Your task to perform on an android device: Open notification settings Image 0: 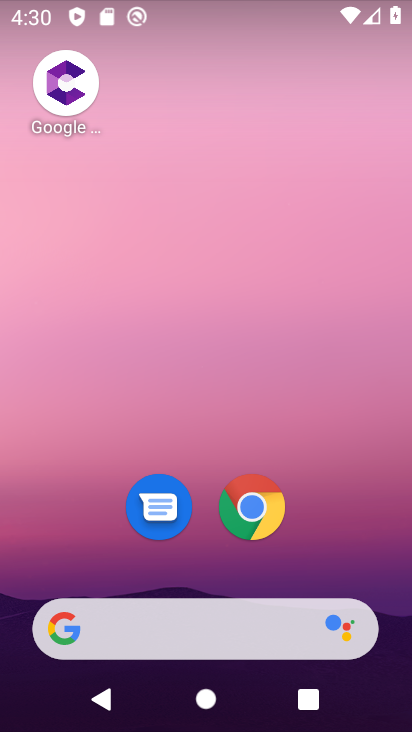
Step 0: drag from (305, 657) to (208, 43)
Your task to perform on an android device: Open notification settings Image 1: 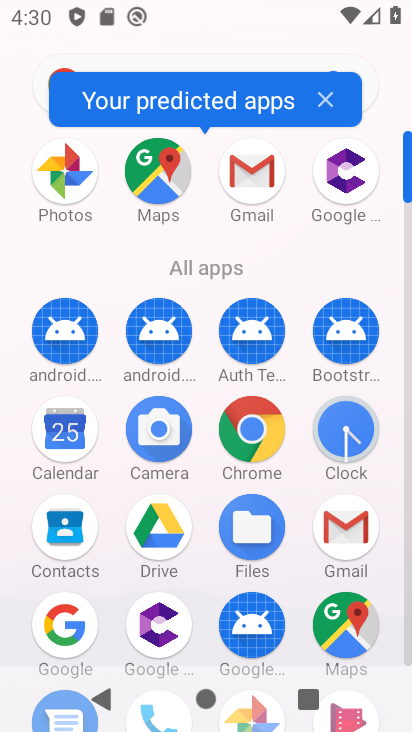
Step 1: drag from (320, 350) to (278, 33)
Your task to perform on an android device: Open notification settings Image 2: 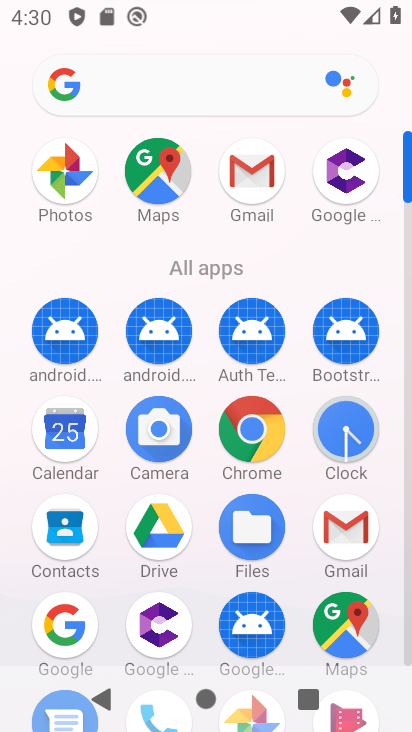
Step 2: drag from (296, 525) to (272, 2)
Your task to perform on an android device: Open notification settings Image 3: 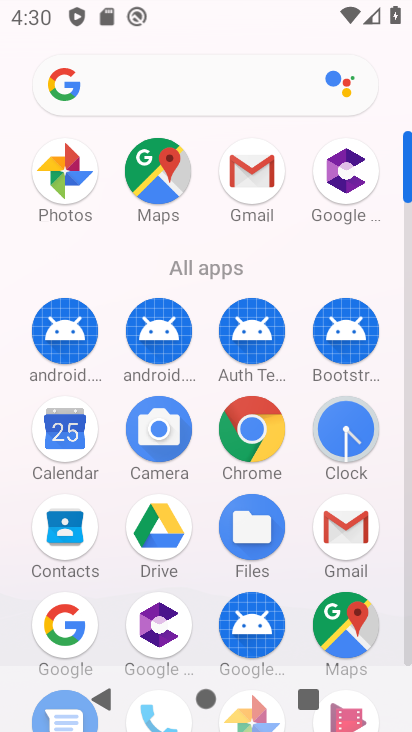
Step 3: drag from (279, 343) to (299, 43)
Your task to perform on an android device: Open notification settings Image 4: 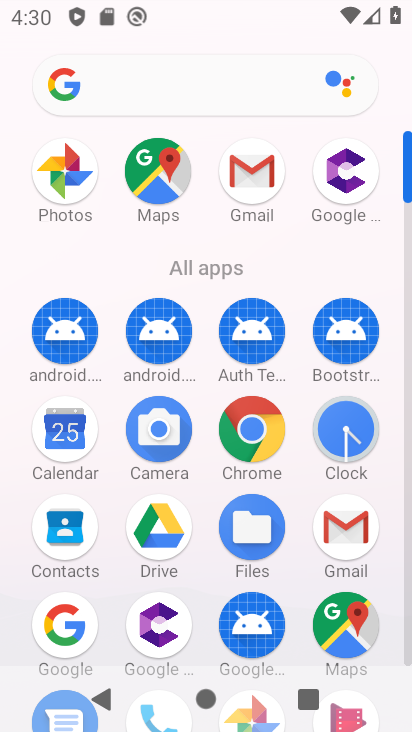
Step 4: drag from (305, 411) to (267, 104)
Your task to perform on an android device: Open notification settings Image 5: 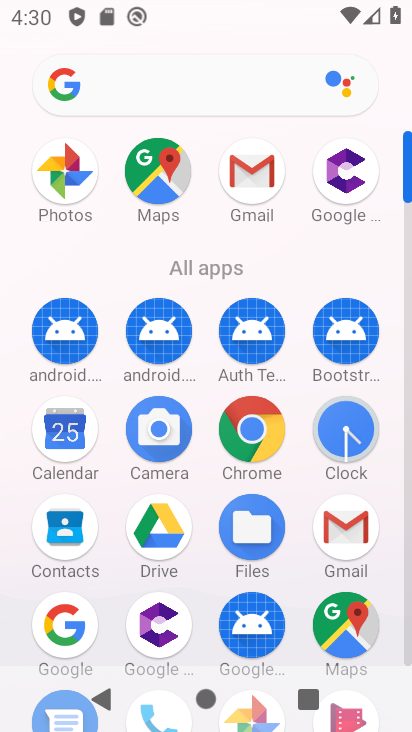
Step 5: drag from (290, 429) to (303, 54)
Your task to perform on an android device: Open notification settings Image 6: 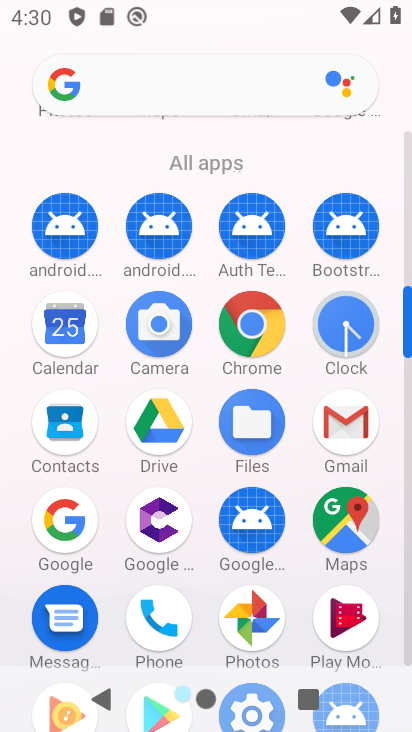
Step 6: drag from (272, 380) to (270, 34)
Your task to perform on an android device: Open notification settings Image 7: 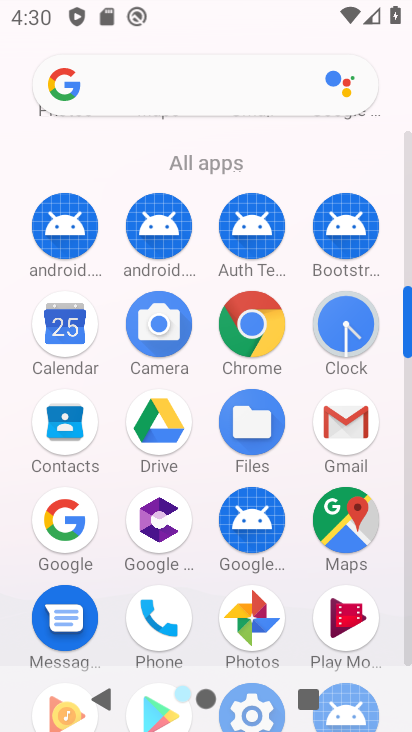
Step 7: drag from (323, 335) to (342, 7)
Your task to perform on an android device: Open notification settings Image 8: 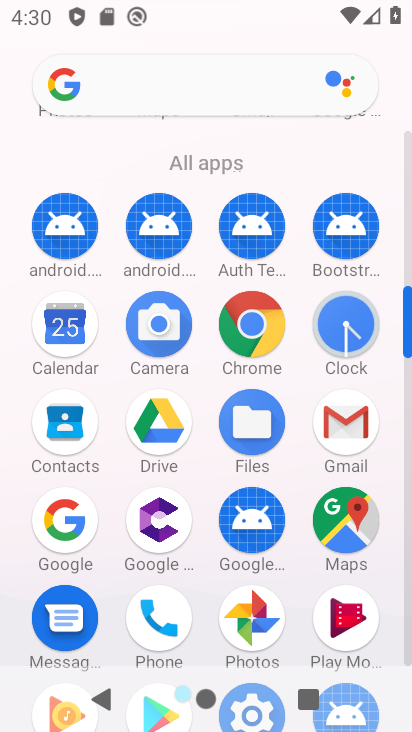
Step 8: drag from (271, 437) to (223, 95)
Your task to perform on an android device: Open notification settings Image 9: 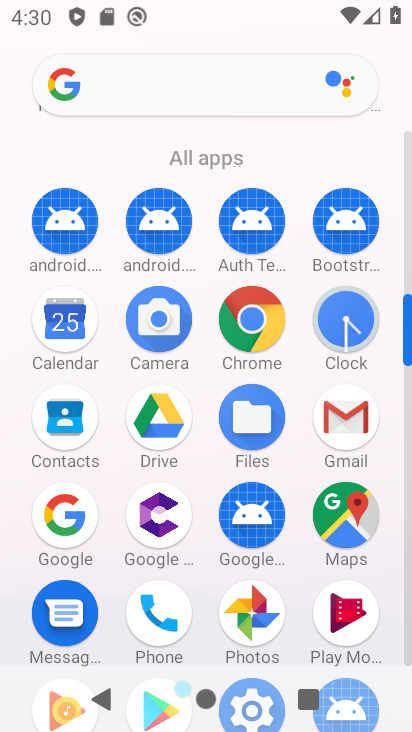
Step 9: drag from (230, 496) to (134, 87)
Your task to perform on an android device: Open notification settings Image 10: 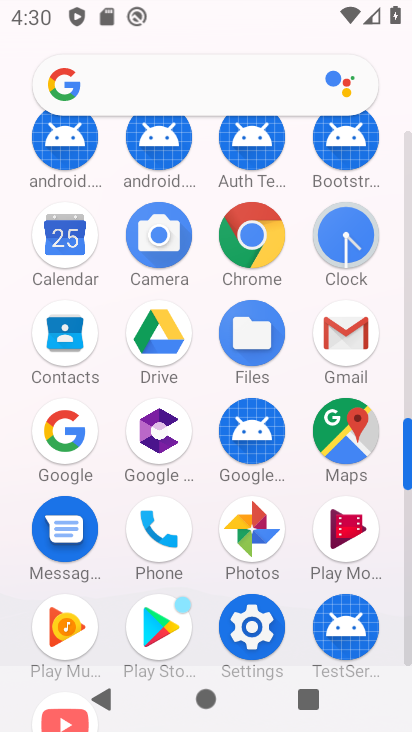
Step 10: click (265, 219)
Your task to perform on an android device: Open notification settings Image 11: 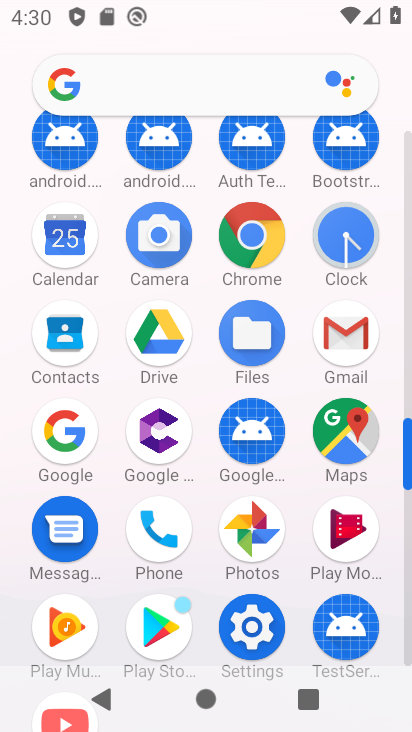
Step 11: click (246, 628)
Your task to perform on an android device: Open notification settings Image 12: 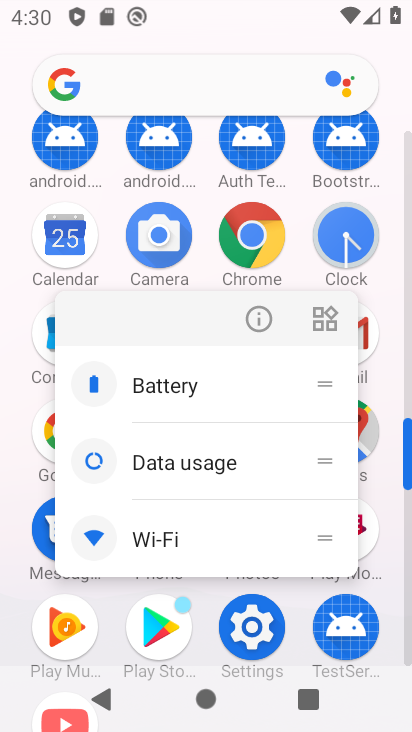
Step 12: click (252, 617)
Your task to perform on an android device: Open notification settings Image 13: 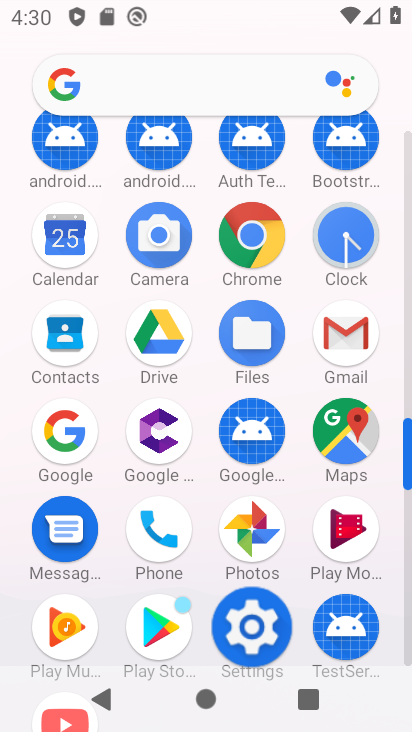
Step 13: click (252, 614)
Your task to perform on an android device: Open notification settings Image 14: 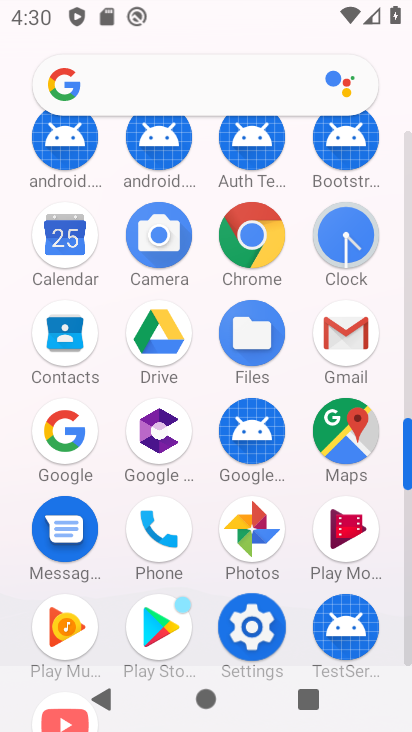
Step 14: drag from (246, 625) to (236, 587)
Your task to perform on an android device: Open notification settings Image 15: 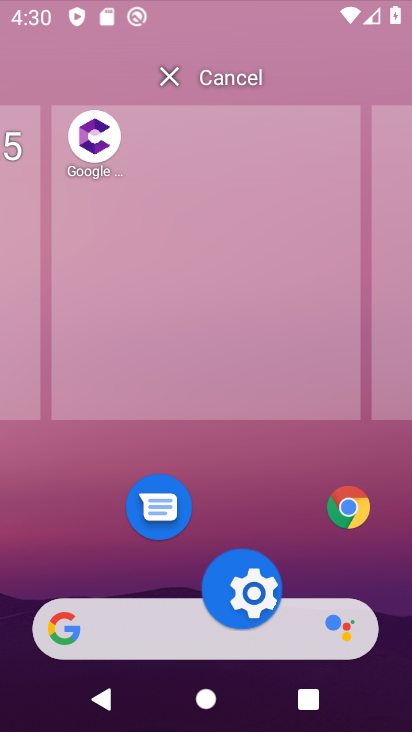
Step 15: click (236, 584)
Your task to perform on an android device: Open notification settings Image 16: 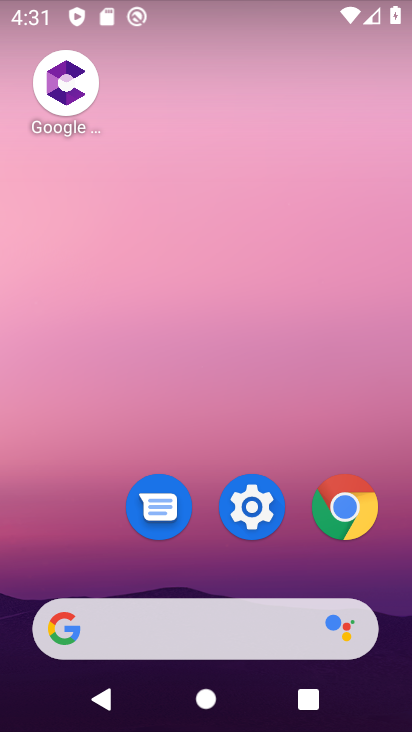
Step 16: click (237, 486)
Your task to perform on an android device: Open notification settings Image 17: 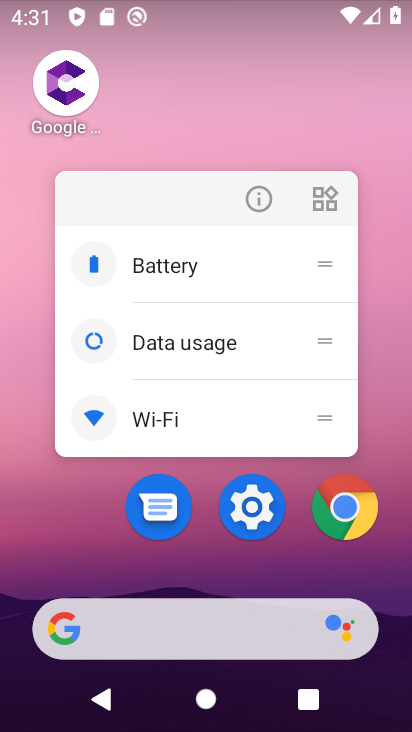
Step 17: click (218, 487)
Your task to perform on an android device: Open notification settings Image 18: 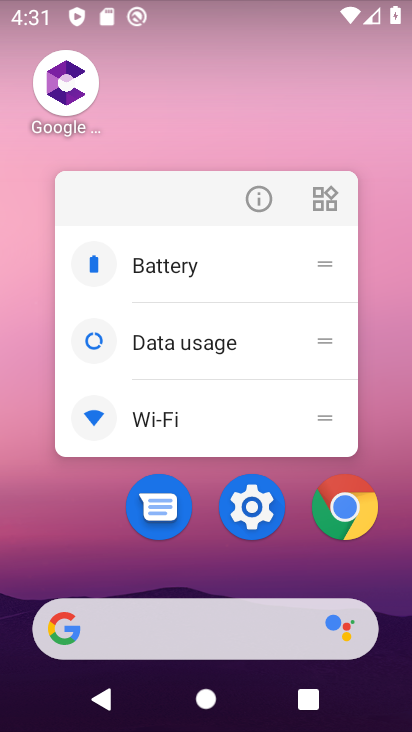
Step 18: drag from (248, 497) to (199, 485)
Your task to perform on an android device: Open notification settings Image 19: 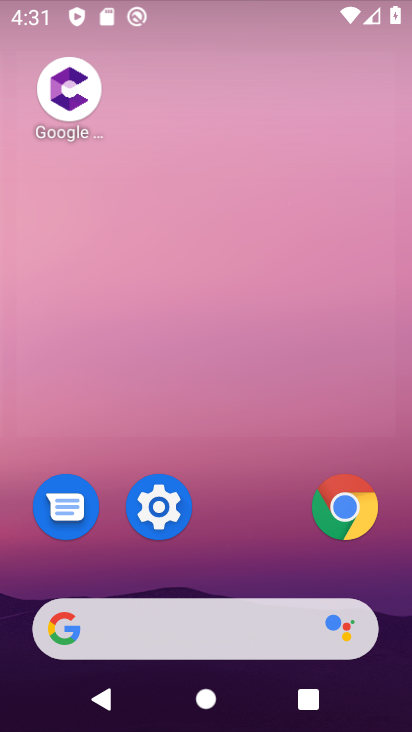
Step 19: drag from (291, 657) to (168, 28)
Your task to perform on an android device: Open notification settings Image 20: 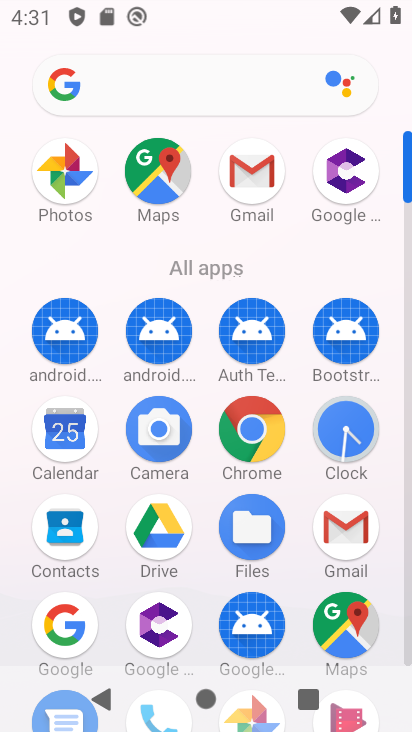
Step 20: drag from (294, 634) to (313, 9)
Your task to perform on an android device: Open notification settings Image 21: 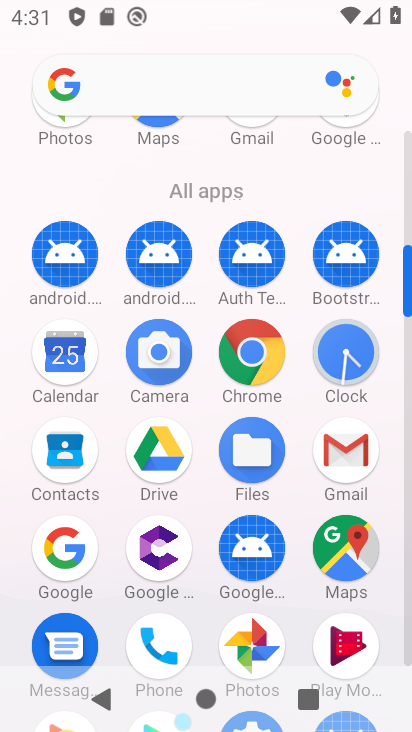
Step 21: drag from (304, 457) to (280, 56)
Your task to perform on an android device: Open notification settings Image 22: 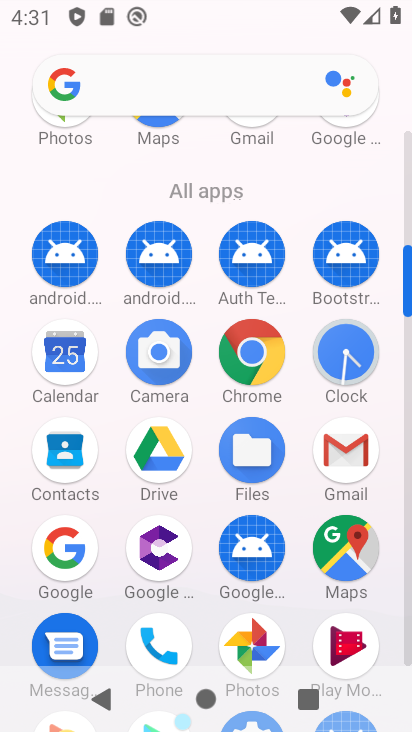
Step 22: drag from (311, 537) to (252, 145)
Your task to perform on an android device: Open notification settings Image 23: 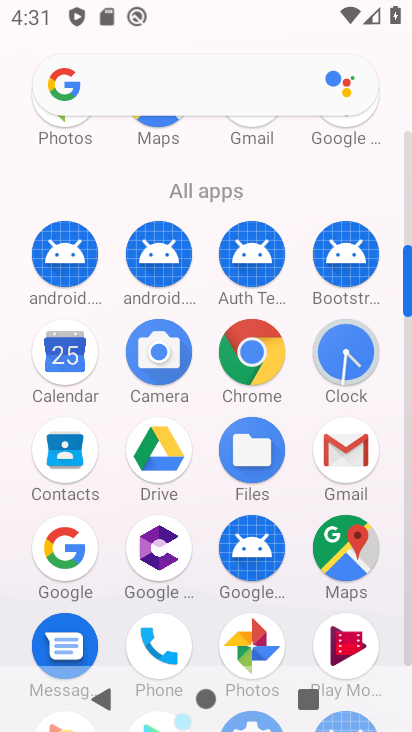
Step 23: drag from (275, 515) to (218, 206)
Your task to perform on an android device: Open notification settings Image 24: 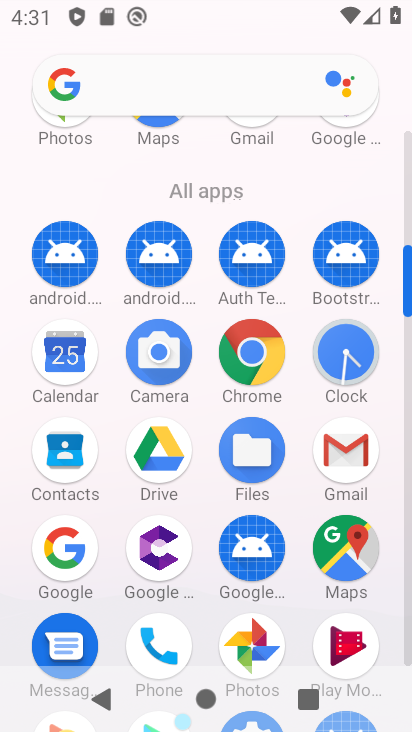
Step 24: drag from (298, 485) to (295, 144)
Your task to perform on an android device: Open notification settings Image 25: 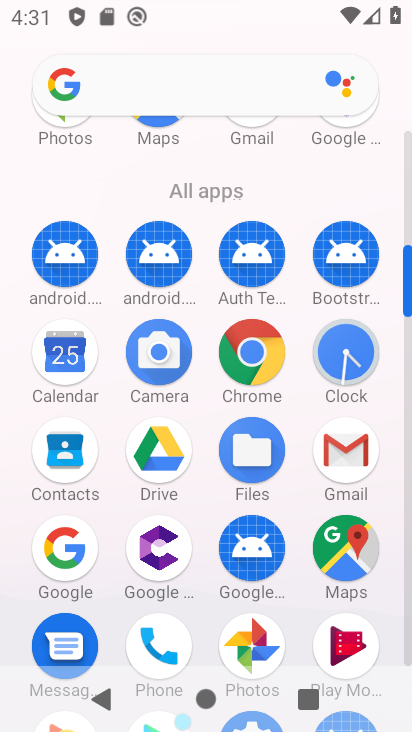
Step 25: drag from (355, 424) to (345, 36)
Your task to perform on an android device: Open notification settings Image 26: 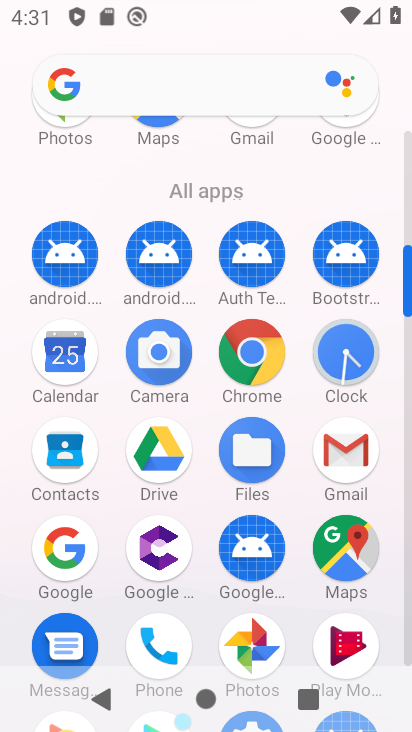
Step 26: drag from (295, 572) to (337, 283)
Your task to perform on an android device: Open notification settings Image 27: 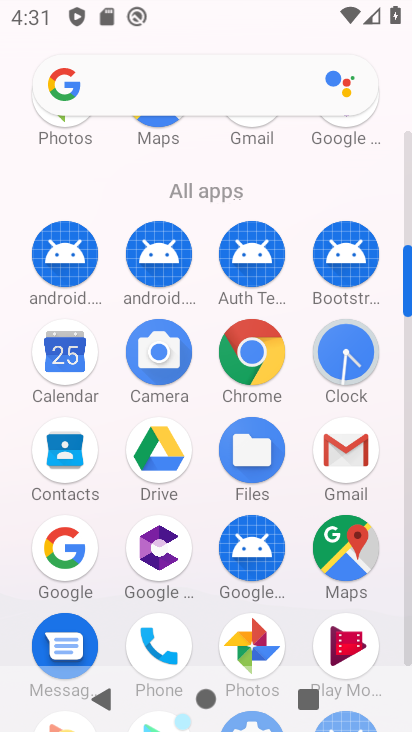
Step 27: drag from (321, 532) to (273, 97)
Your task to perform on an android device: Open notification settings Image 28: 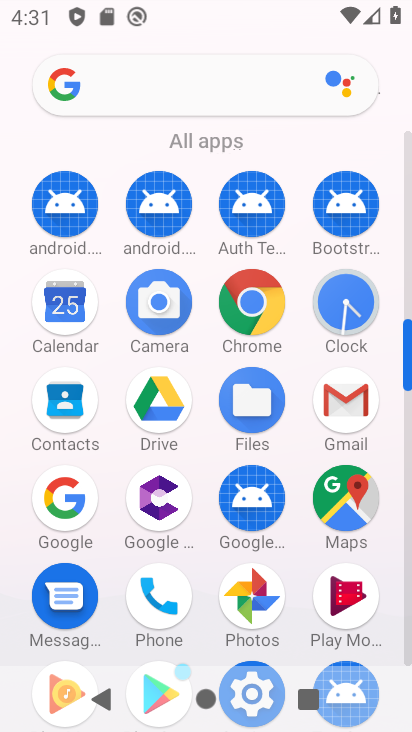
Step 28: click (235, 682)
Your task to perform on an android device: Open notification settings Image 29: 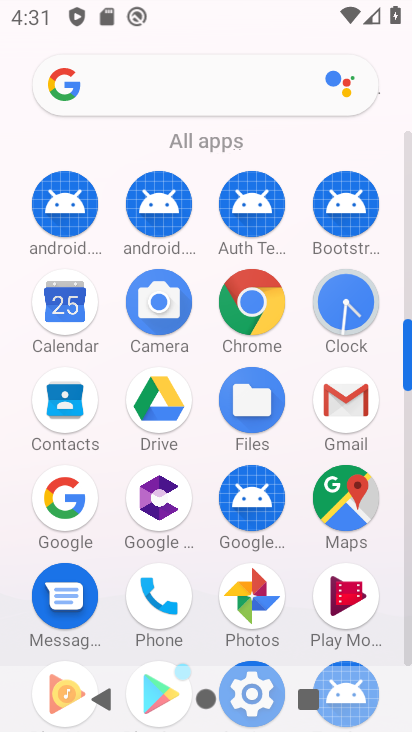
Step 29: click (249, 680)
Your task to perform on an android device: Open notification settings Image 30: 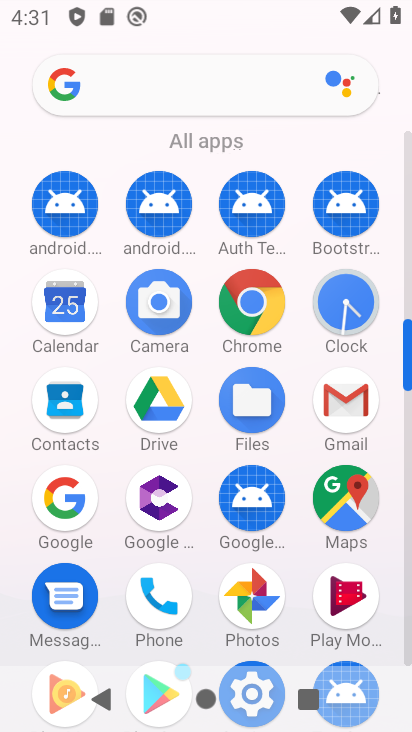
Step 30: drag from (251, 97) to (238, 21)
Your task to perform on an android device: Open notification settings Image 31: 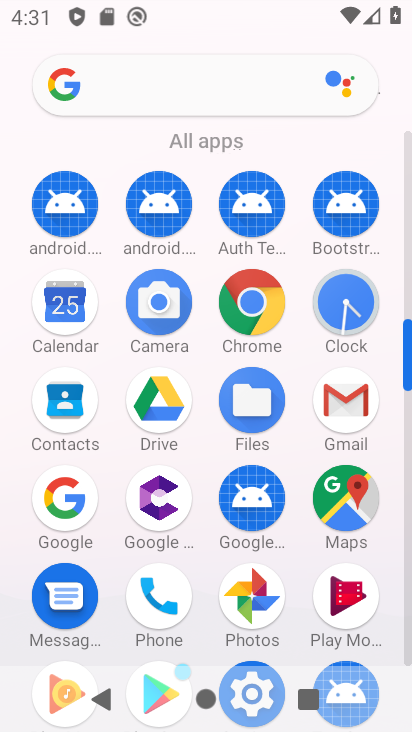
Step 31: drag from (277, 648) to (212, 166)
Your task to perform on an android device: Open notification settings Image 32: 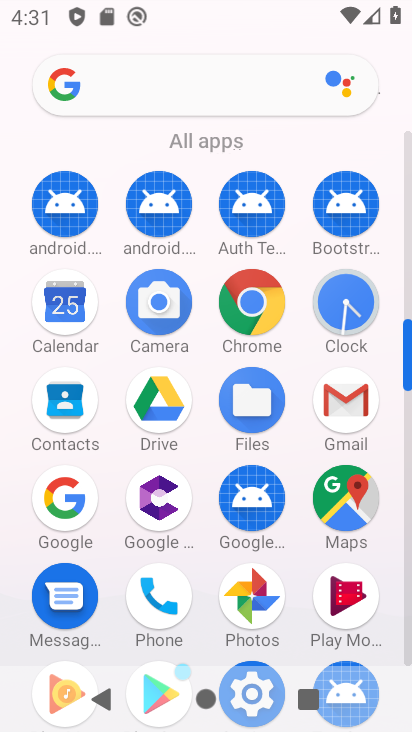
Step 32: drag from (277, 578) to (251, 99)
Your task to perform on an android device: Open notification settings Image 33: 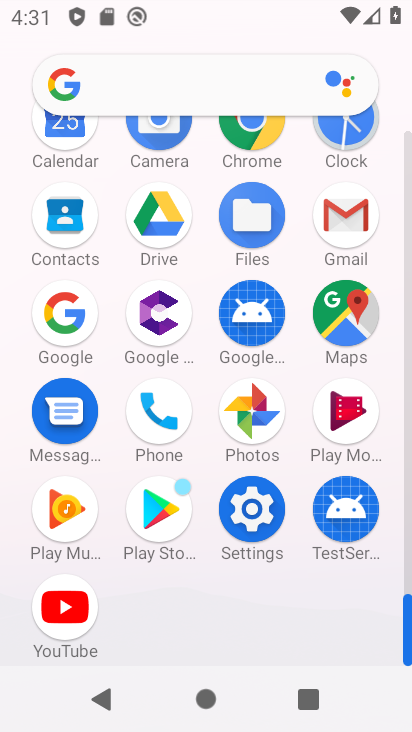
Step 33: click (245, 500)
Your task to perform on an android device: Open notification settings Image 34: 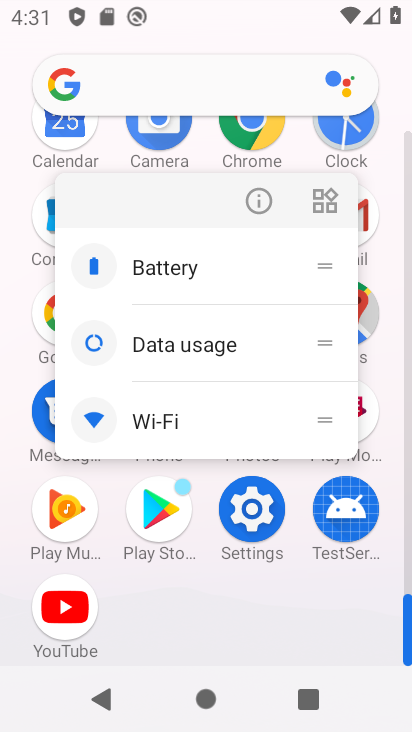
Step 34: click (241, 490)
Your task to perform on an android device: Open notification settings Image 35: 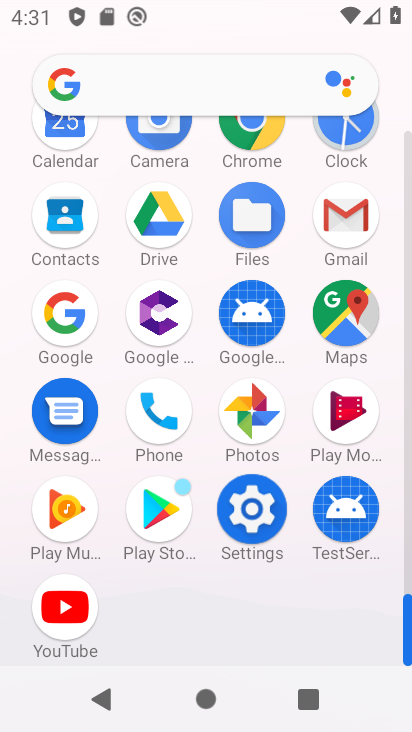
Step 35: click (241, 490)
Your task to perform on an android device: Open notification settings Image 36: 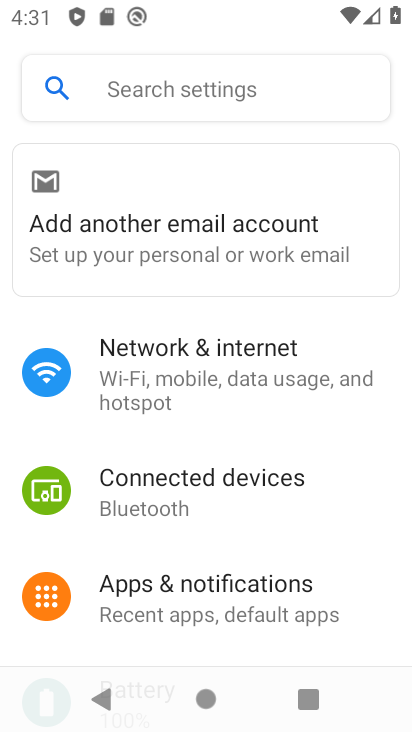
Step 36: click (177, 584)
Your task to perform on an android device: Open notification settings Image 37: 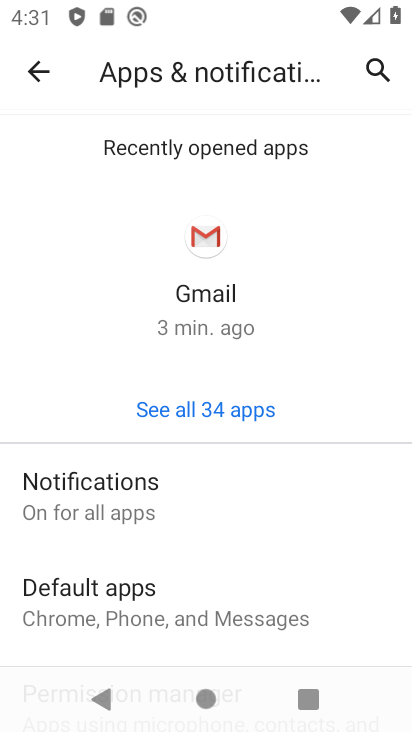
Step 37: drag from (236, 513) to (265, 10)
Your task to perform on an android device: Open notification settings Image 38: 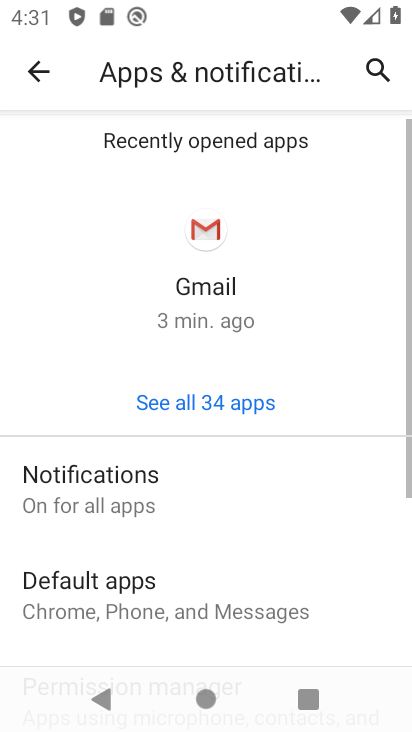
Step 38: drag from (253, 417) to (195, 40)
Your task to perform on an android device: Open notification settings Image 39: 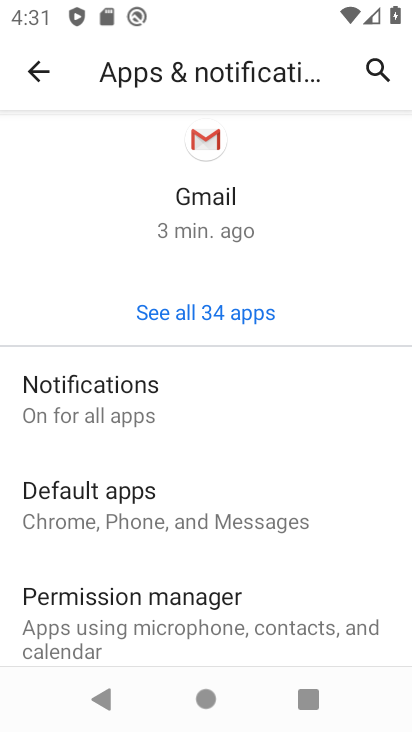
Step 39: drag from (184, 536) to (189, 24)
Your task to perform on an android device: Open notification settings Image 40: 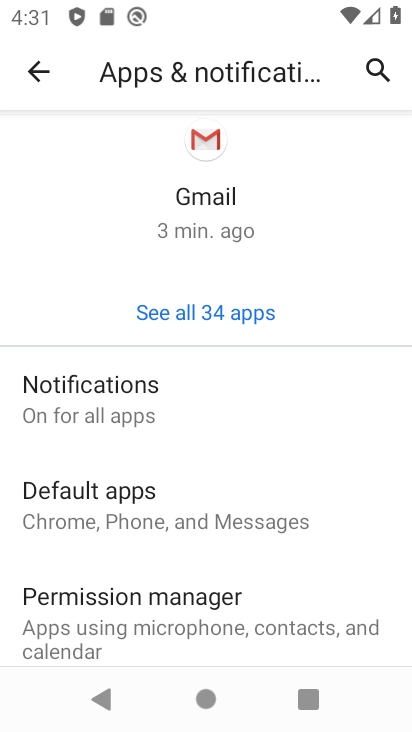
Step 40: drag from (218, 415) to (163, 70)
Your task to perform on an android device: Open notification settings Image 41: 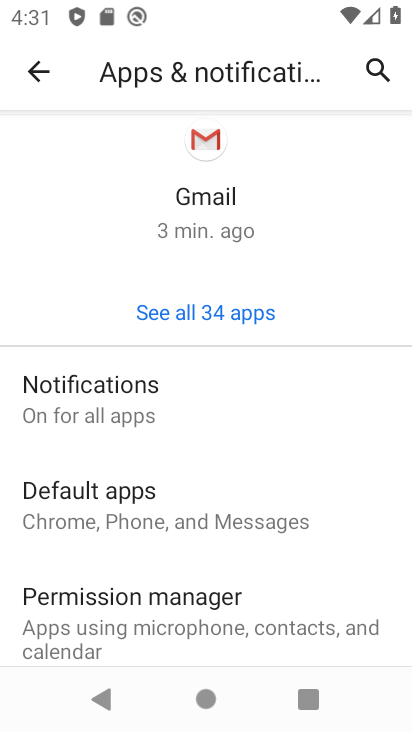
Step 41: drag from (215, 522) to (175, 43)
Your task to perform on an android device: Open notification settings Image 42: 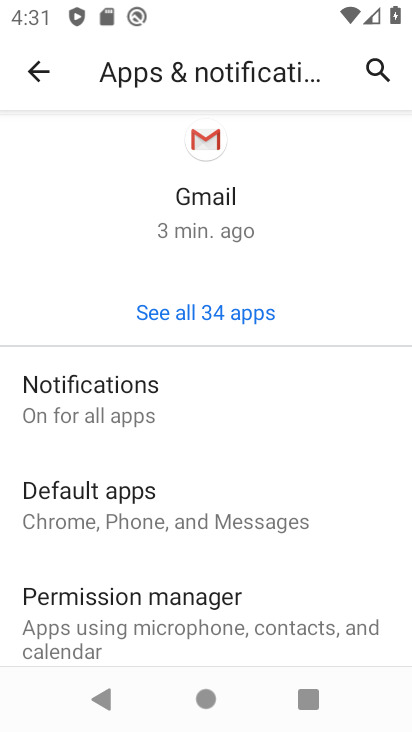
Step 42: drag from (200, 586) to (175, 23)
Your task to perform on an android device: Open notification settings Image 43: 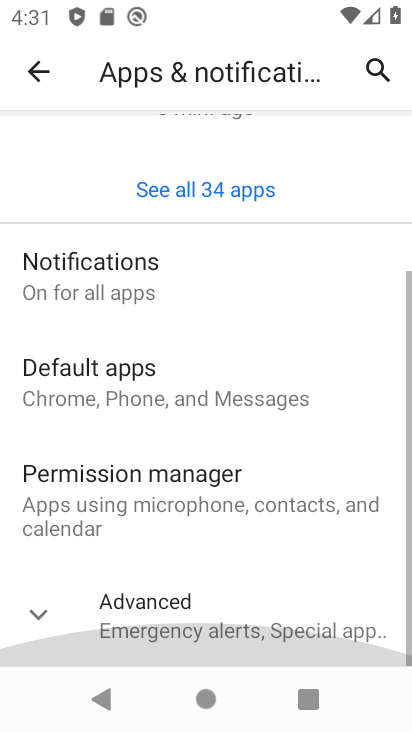
Step 43: drag from (237, 98) to (237, 22)
Your task to perform on an android device: Open notification settings Image 44: 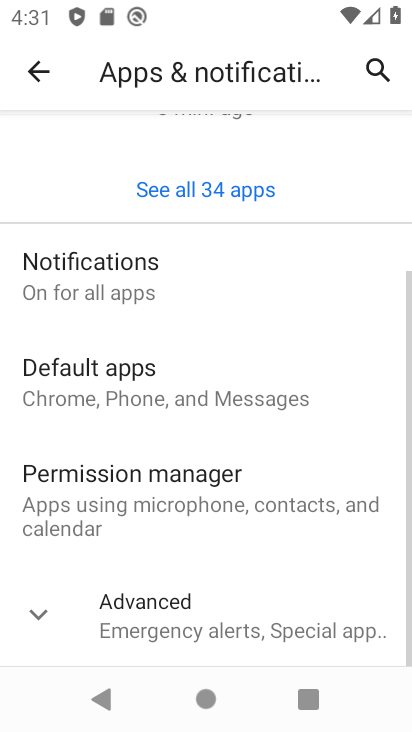
Step 44: drag from (182, 373) to (152, 99)
Your task to perform on an android device: Open notification settings Image 45: 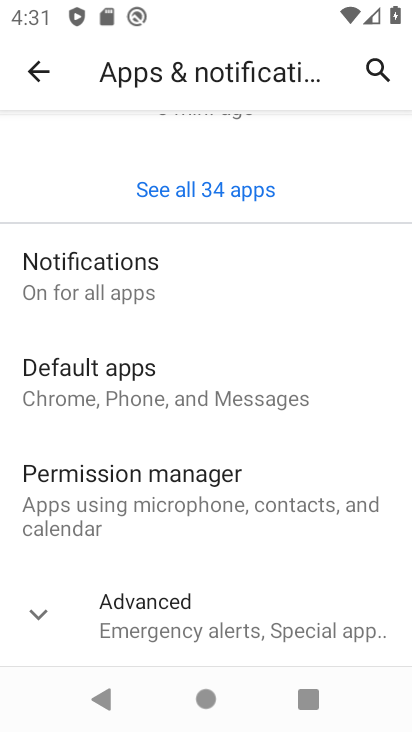
Step 45: click (188, 617)
Your task to perform on an android device: Open notification settings Image 46: 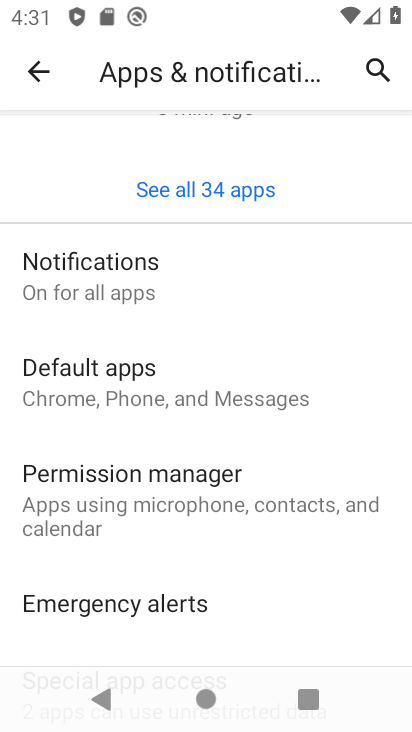
Step 46: drag from (203, 549) to (178, 40)
Your task to perform on an android device: Open notification settings Image 47: 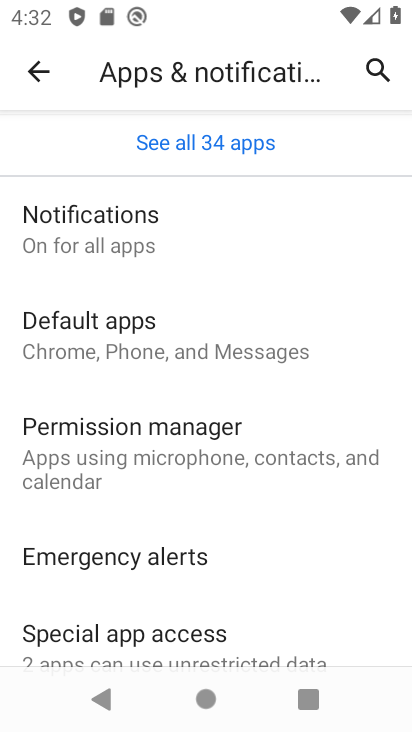
Step 47: drag from (147, 462) to (128, 139)
Your task to perform on an android device: Open notification settings Image 48: 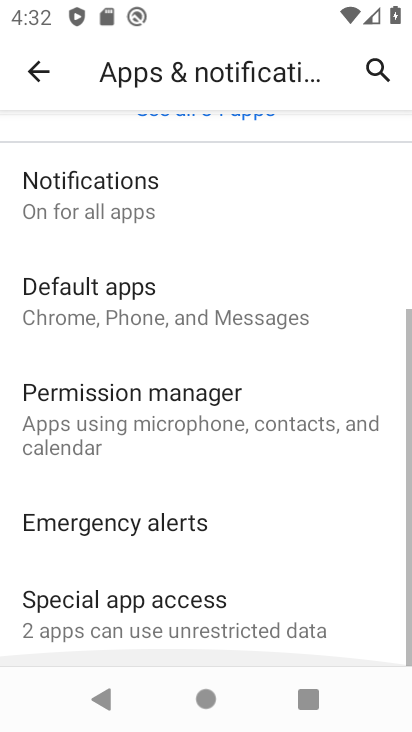
Step 48: drag from (152, 425) to (102, 149)
Your task to perform on an android device: Open notification settings Image 49: 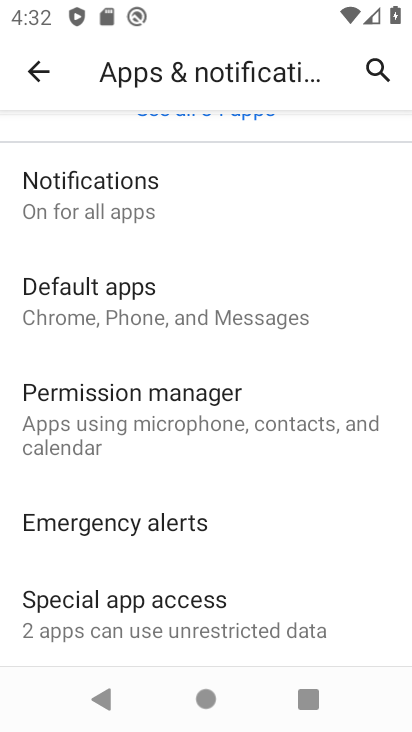
Step 49: drag from (169, 370) to (167, 47)
Your task to perform on an android device: Open notification settings Image 50: 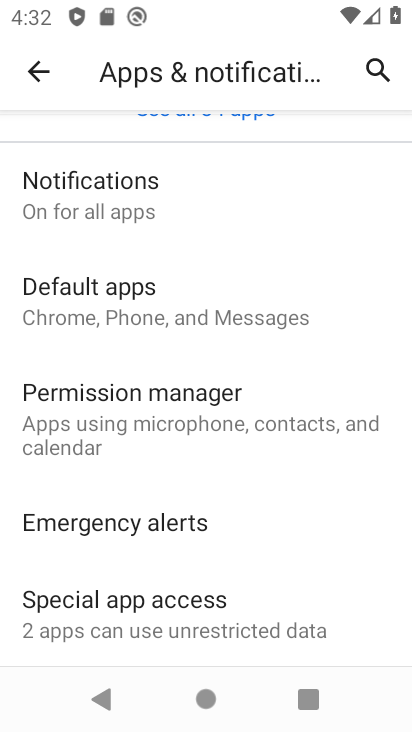
Step 50: click (62, 199)
Your task to perform on an android device: Open notification settings Image 51: 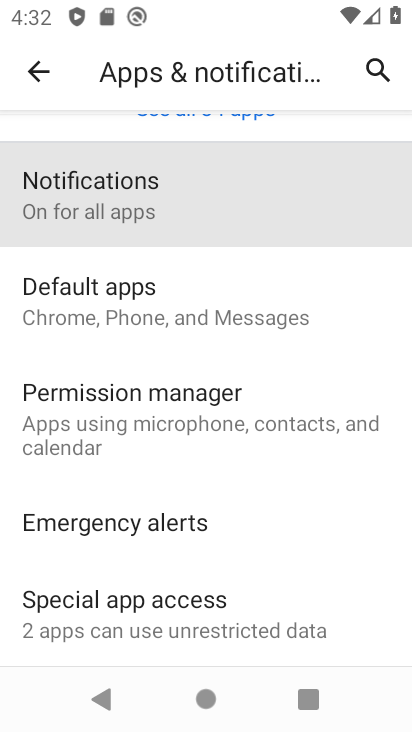
Step 51: click (84, 184)
Your task to perform on an android device: Open notification settings Image 52: 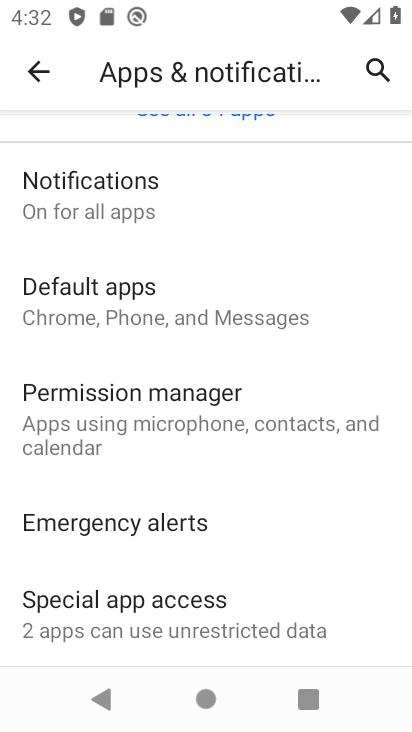
Step 52: click (80, 189)
Your task to perform on an android device: Open notification settings Image 53: 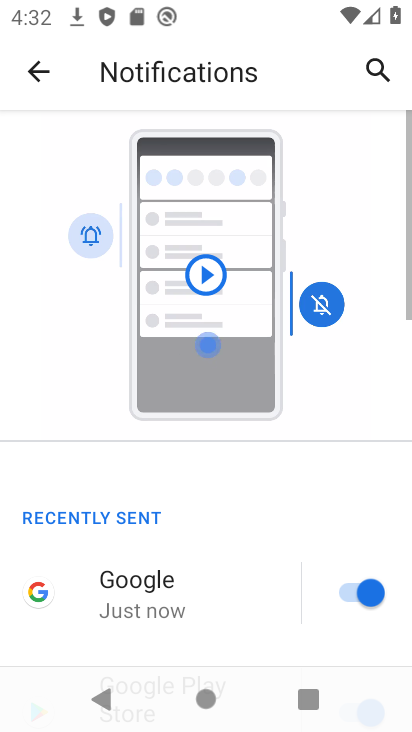
Step 53: drag from (239, 533) to (229, 109)
Your task to perform on an android device: Open notification settings Image 54: 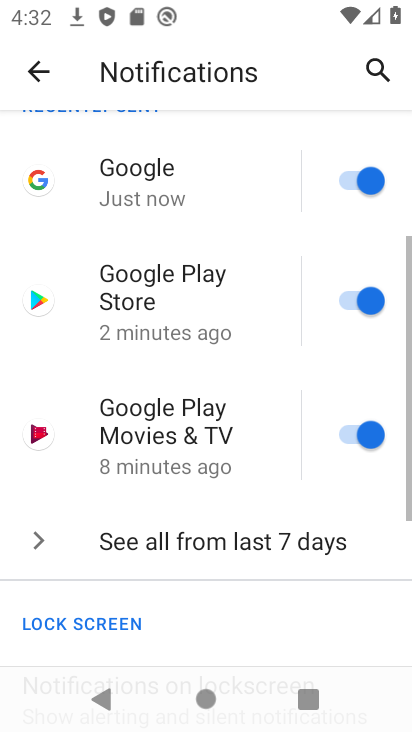
Step 54: drag from (235, 580) to (174, 175)
Your task to perform on an android device: Open notification settings Image 55: 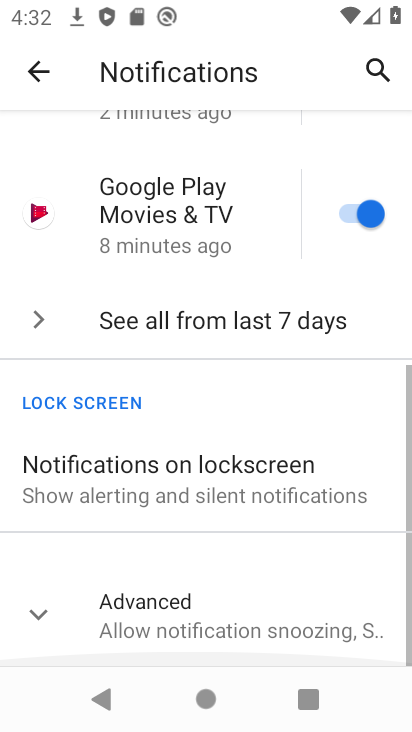
Step 55: drag from (239, 471) to (166, 112)
Your task to perform on an android device: Open notification settings Image 56: 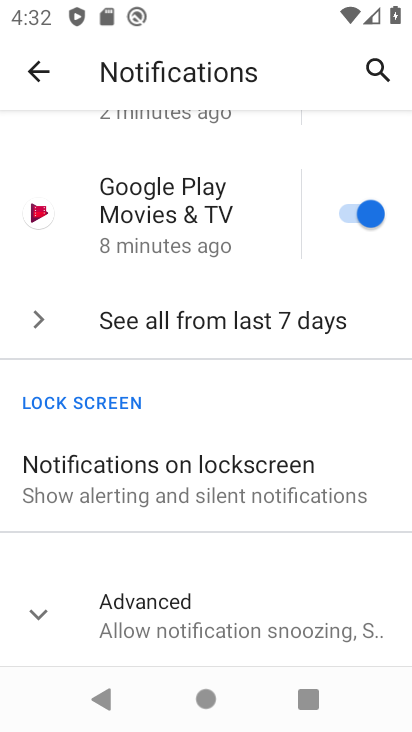
Step 56: click (186, 613)
Your task to perform on an android device: Open notification settings Image 57: 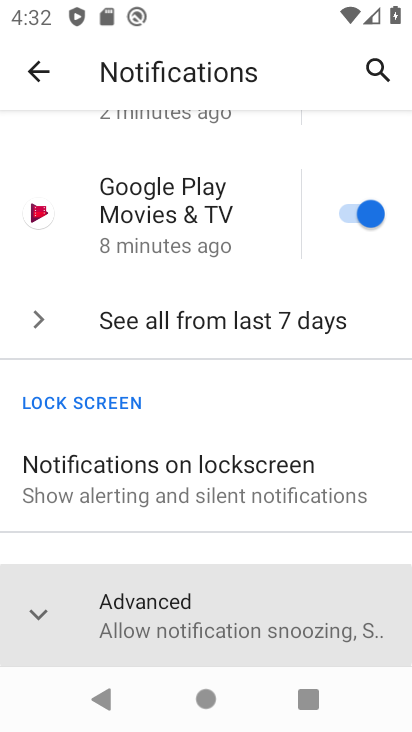
Step 57: click (186, 614)
Your task to perform on an android device: Open notification settings Image 58: 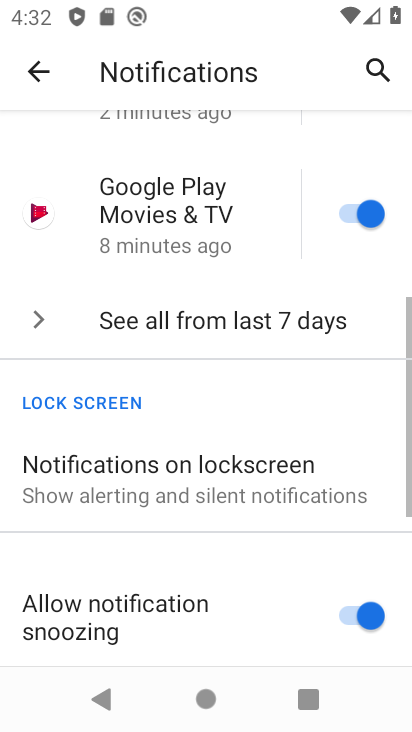
Step 58: drag from (226, 516) to (253, 18)
Your task to perform on an android device: Open notification settings Image 59: 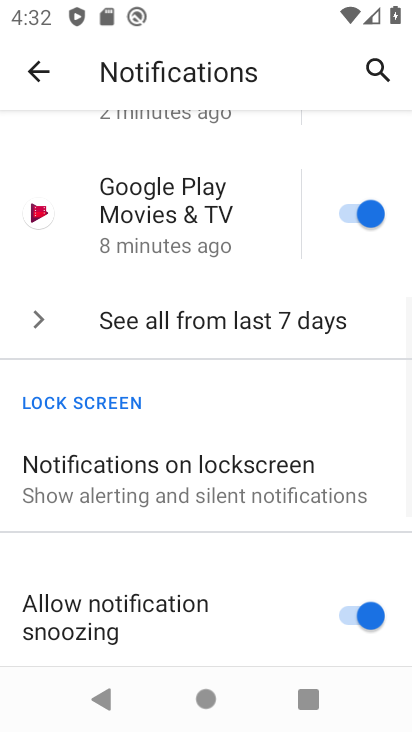
Step 59: drag from (201, 464) to (160, 95)
Your task to perform on an android device: Open notification settings Image 60: 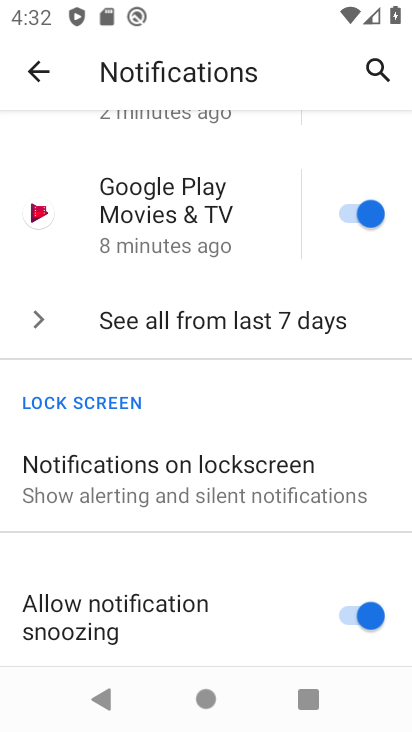
Step 60: drag from (216, 425) to (164, 35)
Your task to perform on an android device: Open notification settings Image 61: 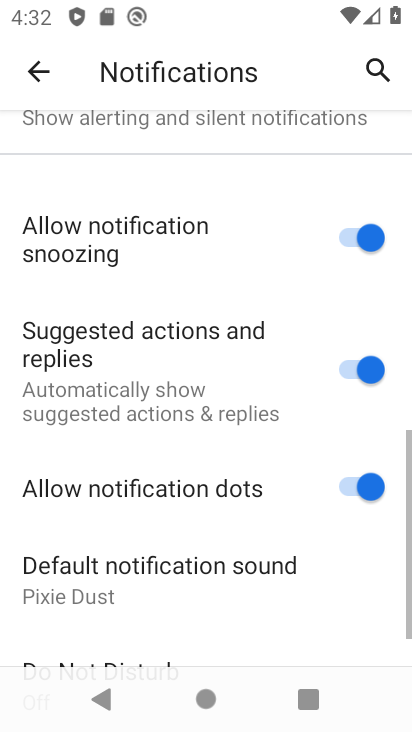
Step 61: drag from (215, 452) to (187, 0)
Your task to perform on an android device: Open notification settings Image 62: 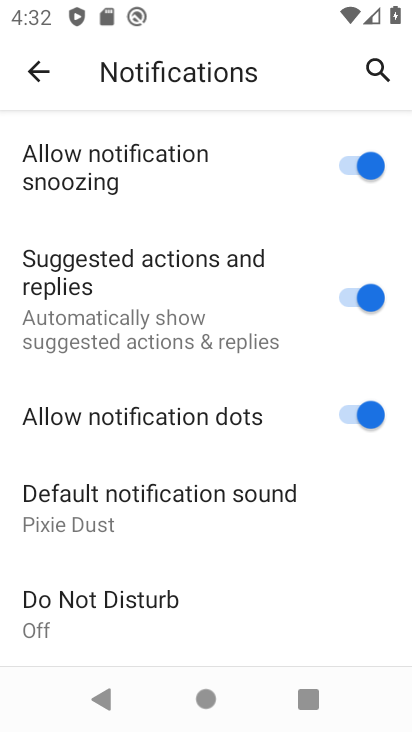
Step 62: click (363, 157)
Your task to perform on an android device: Open notification settings Image 63: 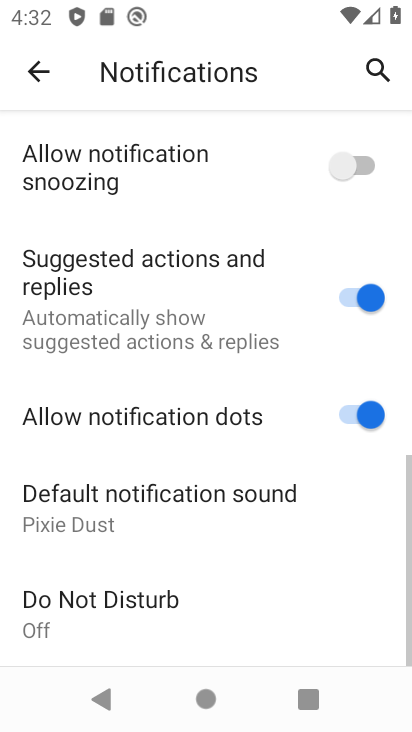
Step 63: click (367, 402)
Your task to perform on an android device: Open notification settings Image 64: 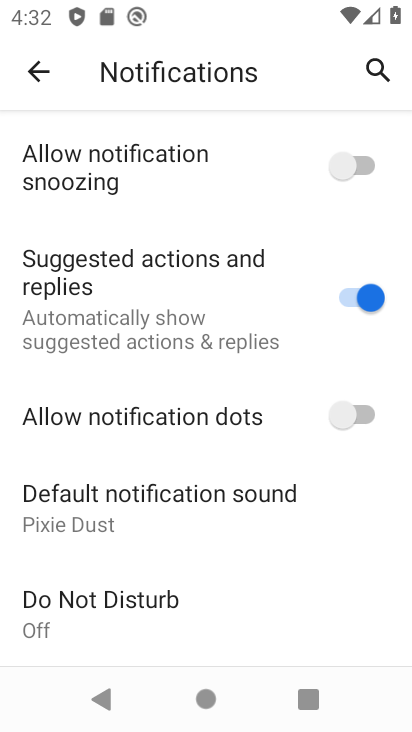
Step 64: task complete